Your task to perform on an android device: Go to wifi settings Image 0: 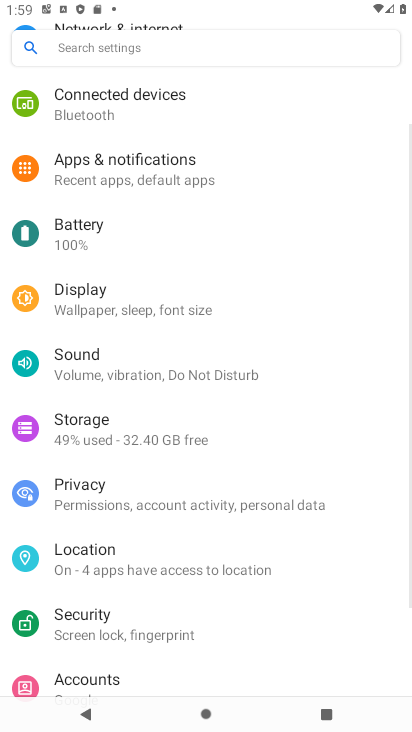
Step 0: press home button
Your task to perform on an android device: Go to wifi settings Image 1: 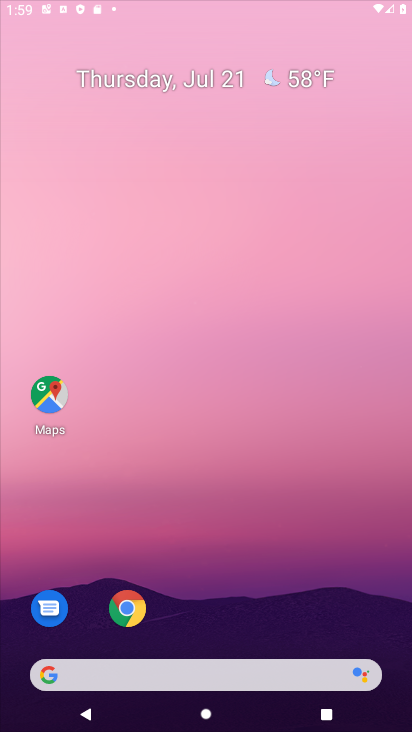
Step 1: drag from (390, 655) to (180, 101)
Your task to perform on an android device: Go to wifi settings Image 2: 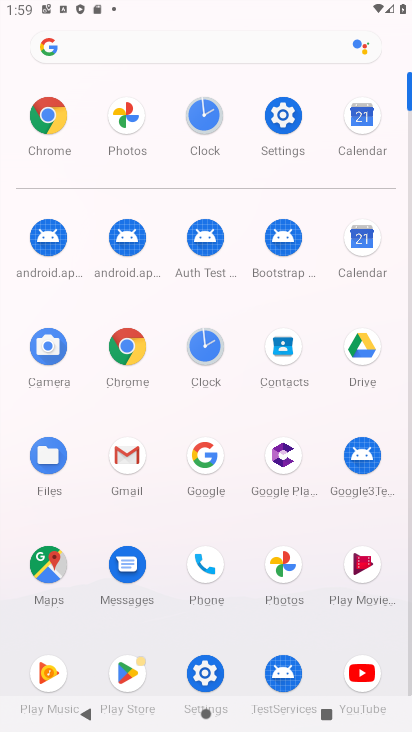
Step 2: click (206, 668)
Your task to perform on an android device: Go to wifi settings Image 3: 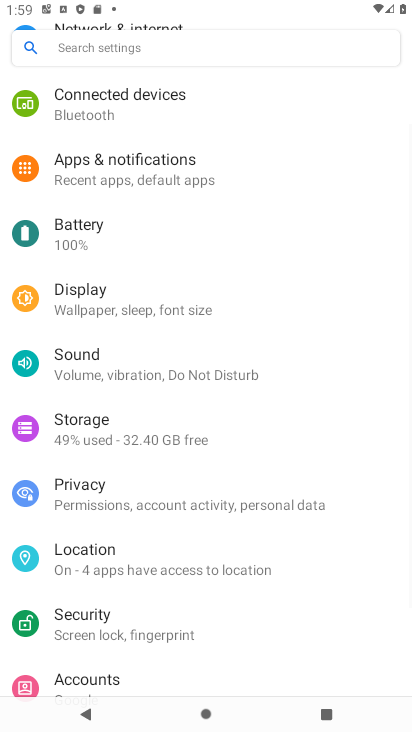
Step 3: drag from (152, 104) to (203, 671)
Your task to perform on an android device: Go to wifi settings Image 4: 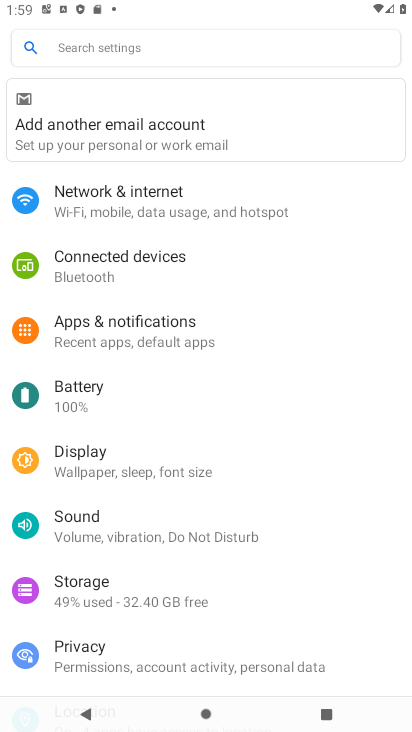
Step 4: click (157, 204)
Your task to perform on an android device: Go to wifi settings Image 5: 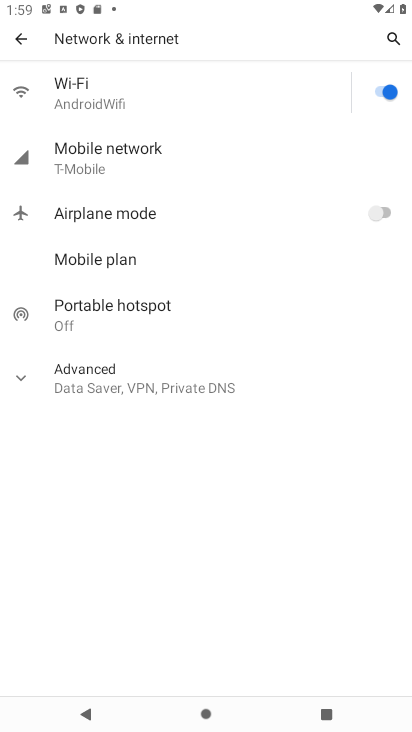
Step 5: click (128, 98)
Your task to perform on an android device: Go to wifi settings Image 6: 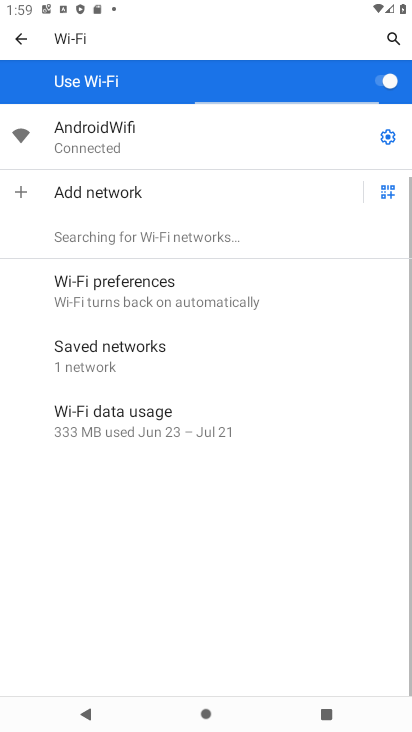
Step 6: task complete